Your task to perform on an android device: delete a single message in the gmail app Image 0: 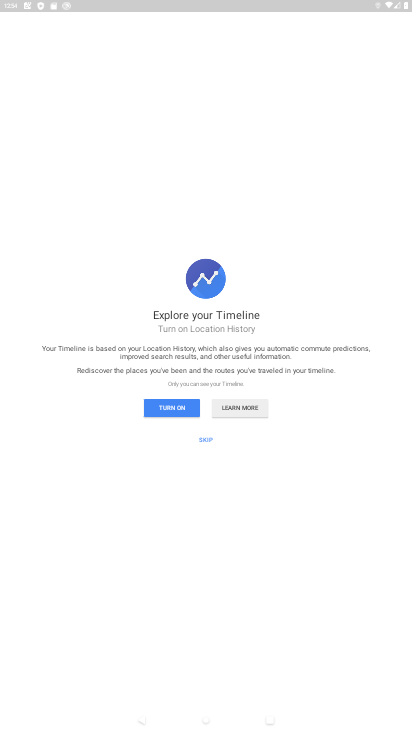
Step 0: press home button
Your task to perform on an android device: delete a single message in the gmail app Image 1: 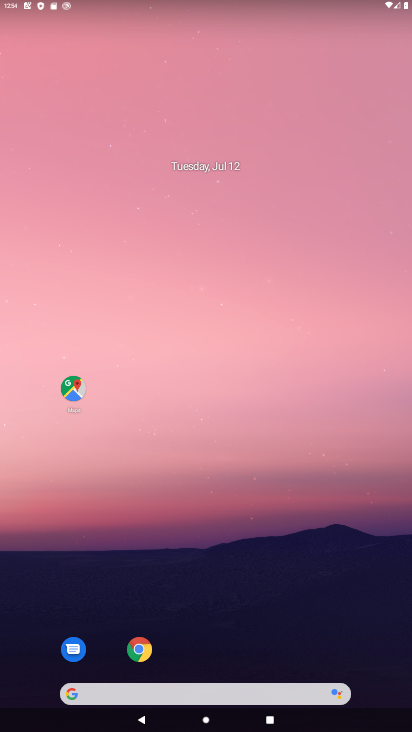
Step 1: drag from (265, 632) to (230, 66)
Your task to perform on an android device: delete a single message in the gmail app Image 2: 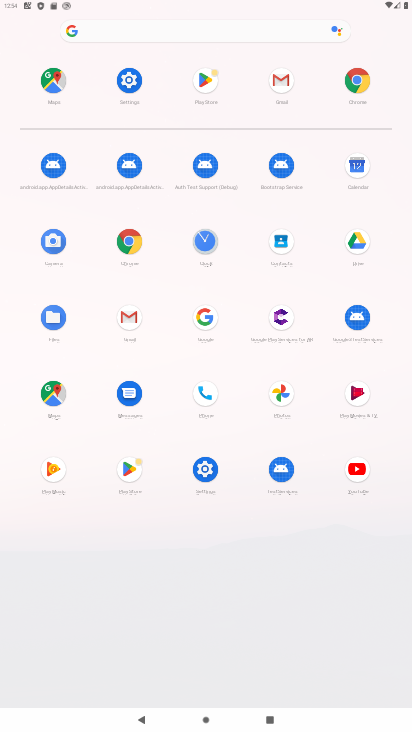
Step 2: click (282, 92)
Your task to perform on an android device: delete a single message in the gmail app Image 3: 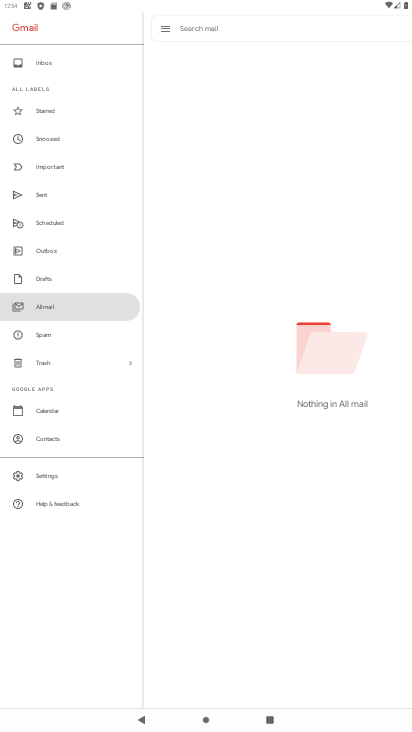
Step 3: task complete